Your task to perform on an android device: Search for "razer blade" on bestbuy, select the first entry, add it to the cart, then select checkout. Image 0: 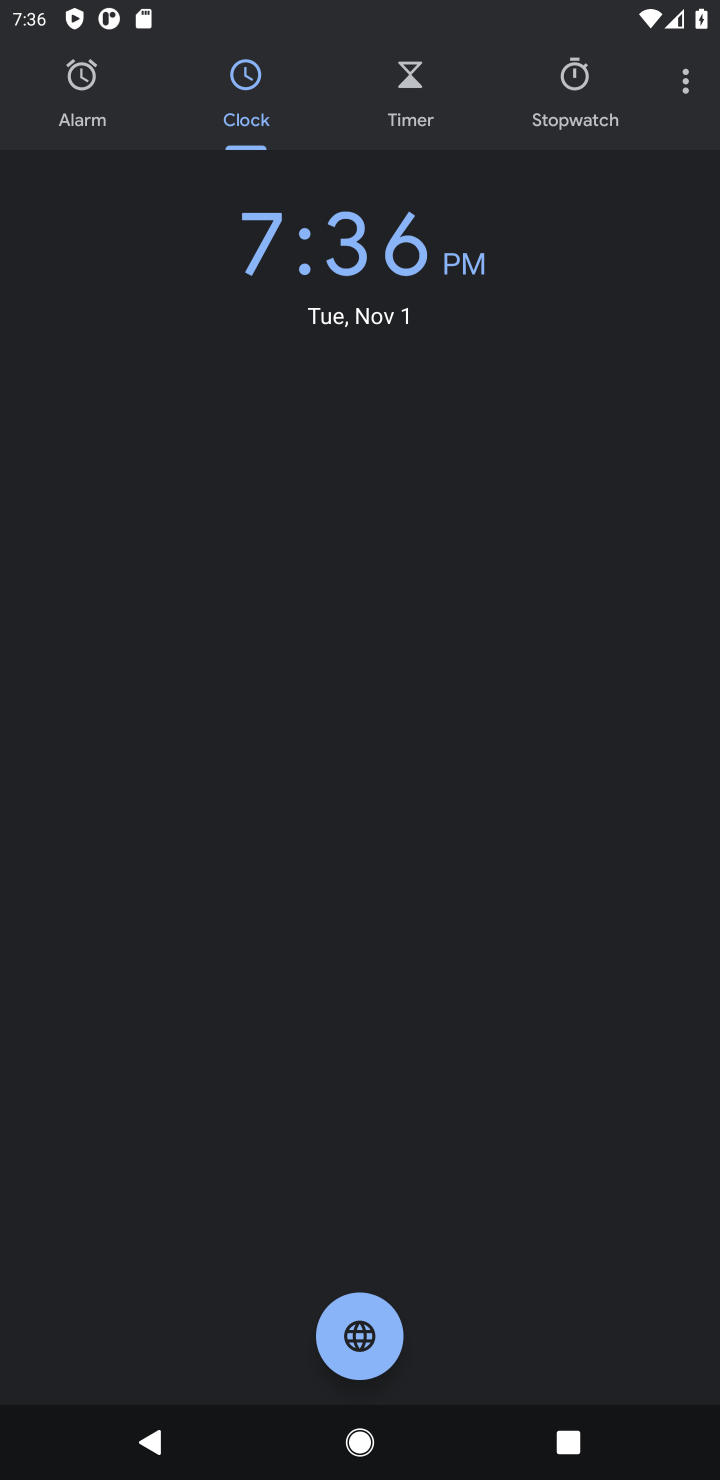
Step 0: press home button
Your task to perform on an android device: Search for "razer blade" on bestbuy, select the first entry, add it to the cart, then select checkout. Image 1: 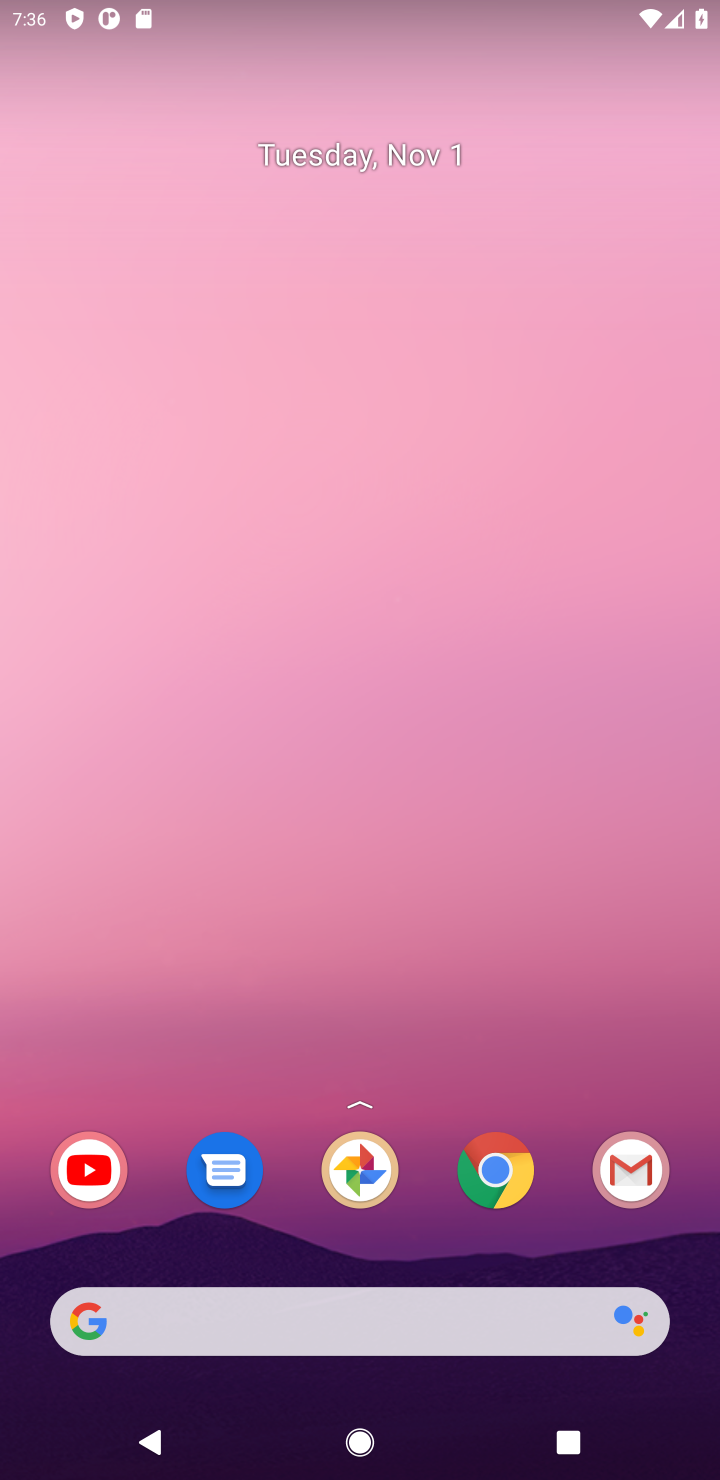
Step 1: click (492, 1166)
Your task to perform on an android device: Search for "razer blade" on bestbuy, select the first entry, add it to the cart, then select checkout. Image 2: 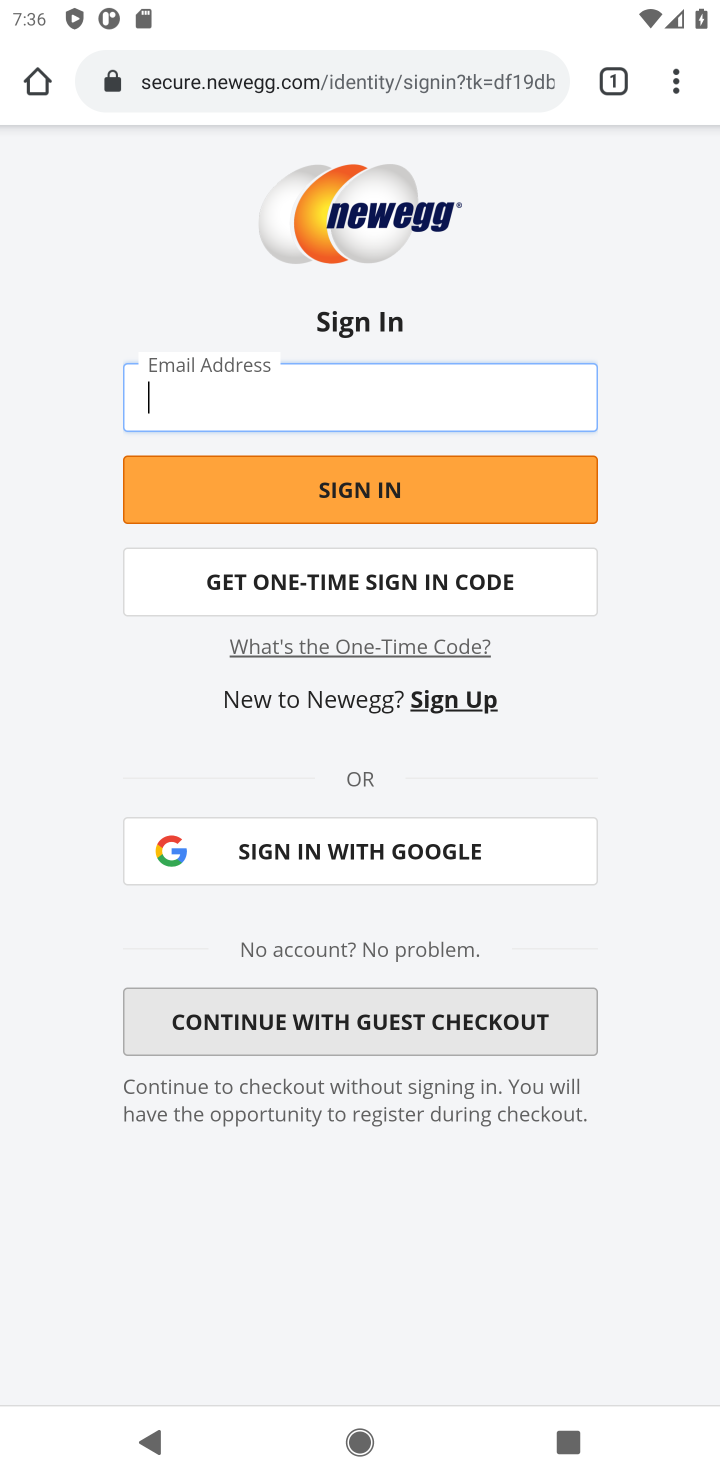
Step 2: click (387, 88)
Your task to perform on an android device: Search for "razer blade" on bestbuy, select the first entry, add it to the cart, then select checkout. Image 3: 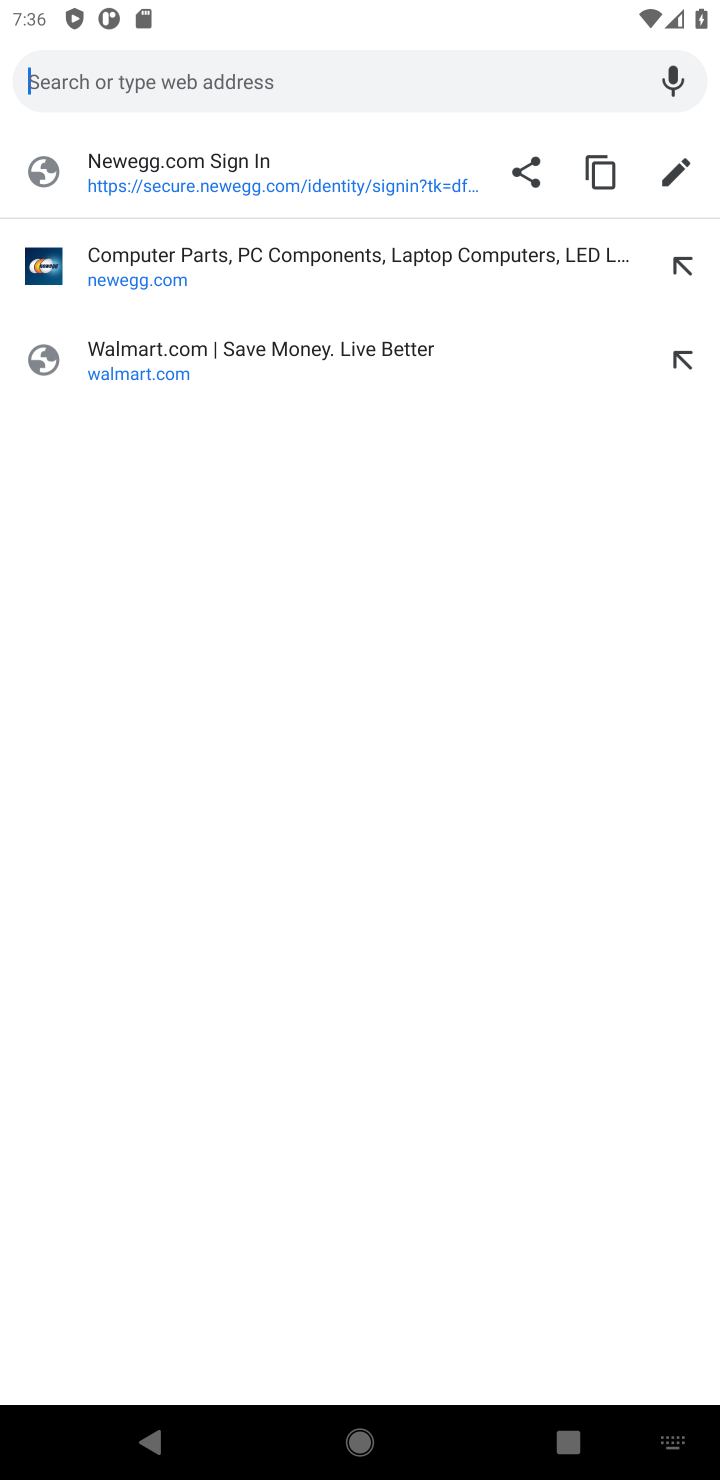
Step 3: type "bestbuy"
Your task to perform on an android device: Search for "razer blade" on bestbuy, select the first entry, add it to the cart, then select checkout. Image 4: 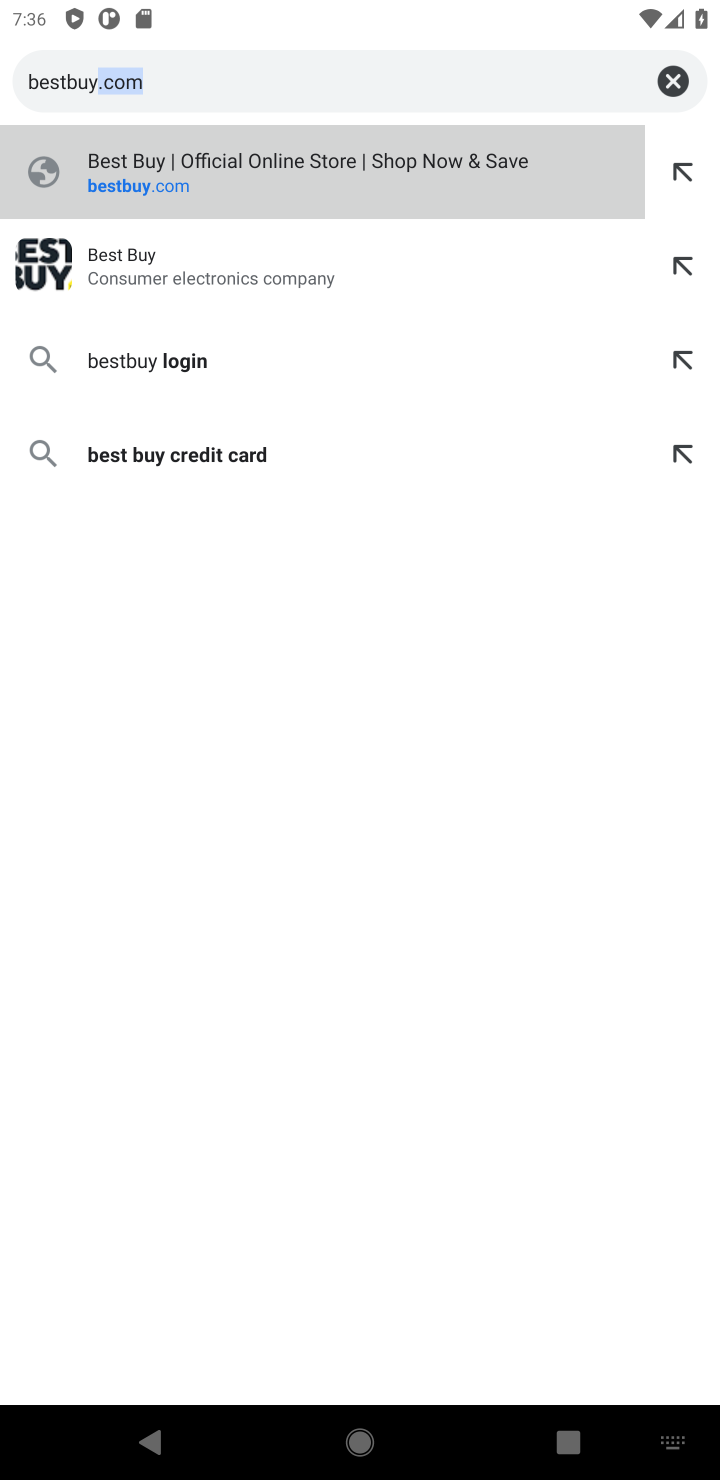
Step 4: type ""
Your task to perform on an android device: Search for "razer blade" on bestbuy, select the first entry, add it to the cart, then select checkout. Image 5: 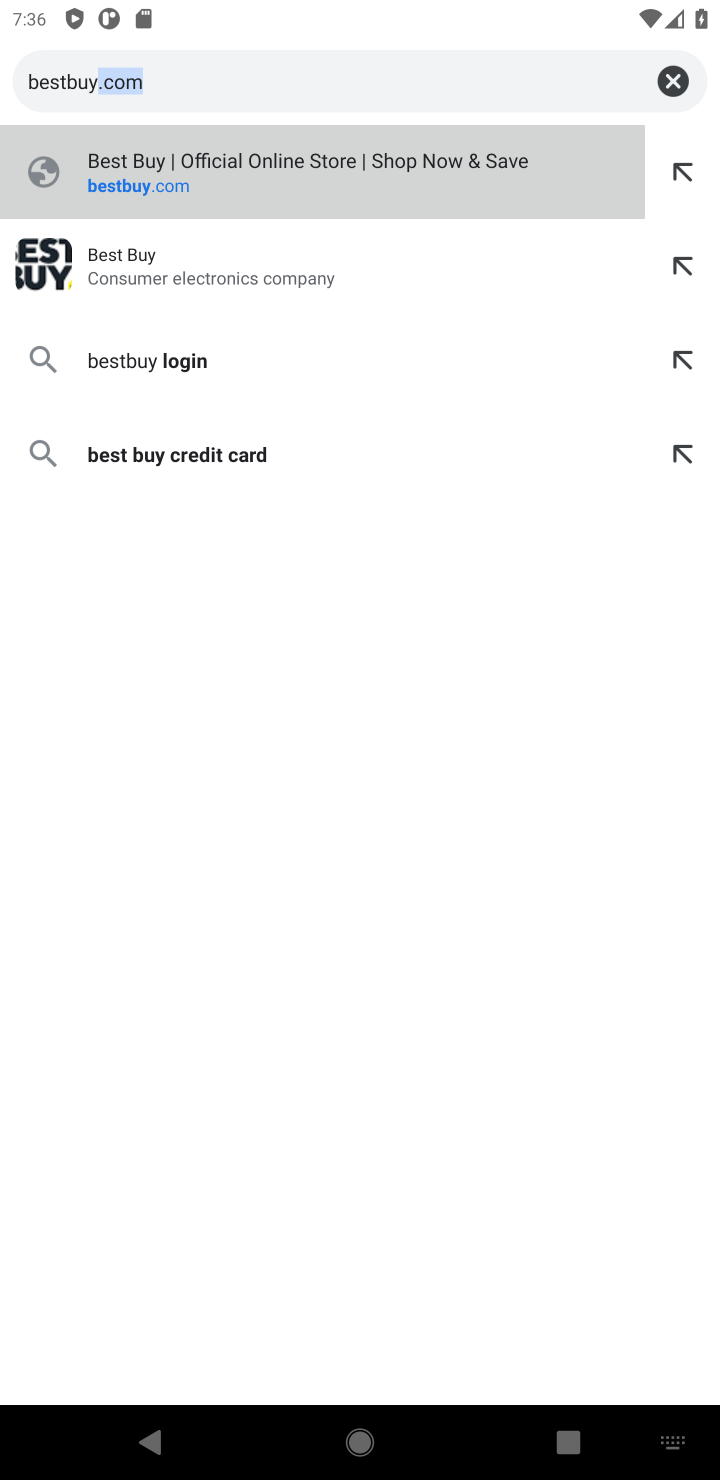
Step 5: press enter
Your task to perform on an android device: Search for "razer blade" on bestbuy, select the first entry, add it to the cart, then select checkout. Image 6: 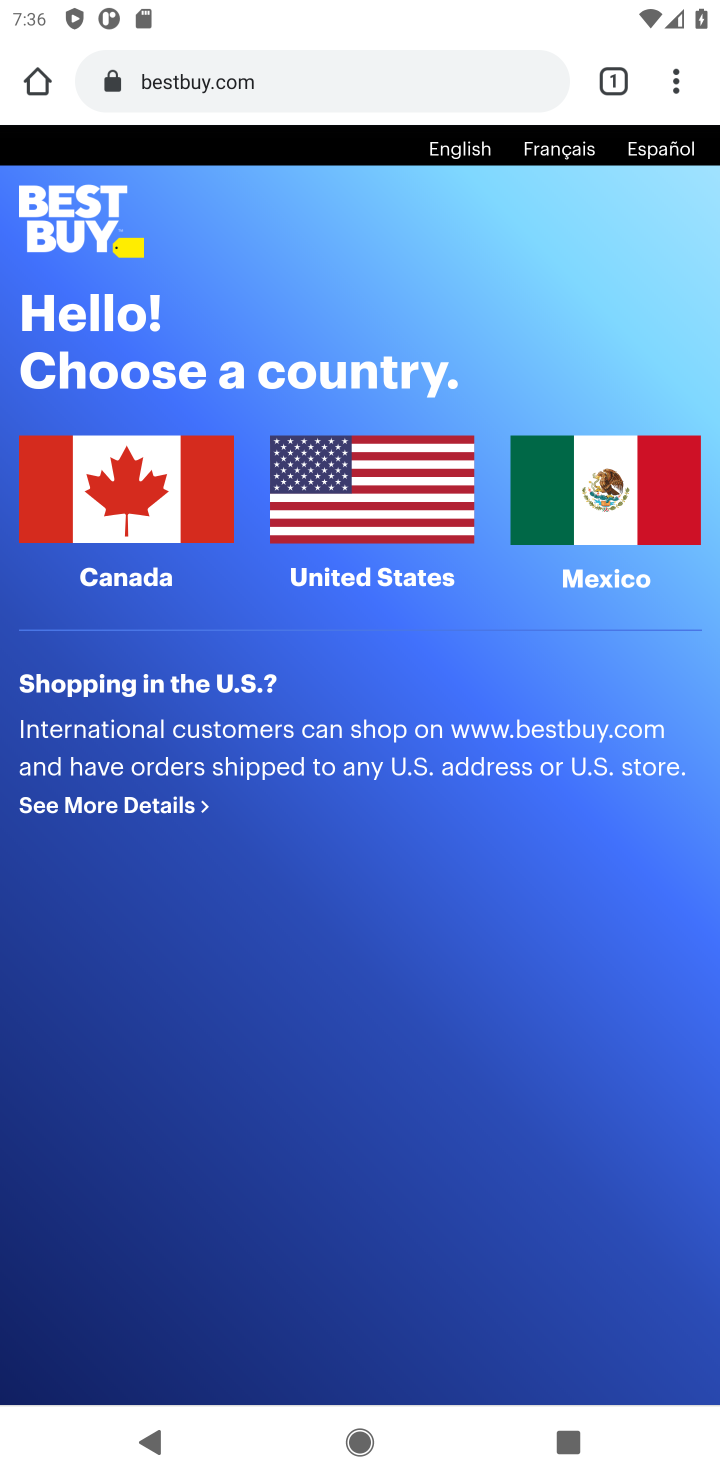
Step 6: click (442, 519)
Your task to perform on an android device: Search for "razer blade" on bestbuy, select the first entry, add it to the cart, then select checkout. Image 7: 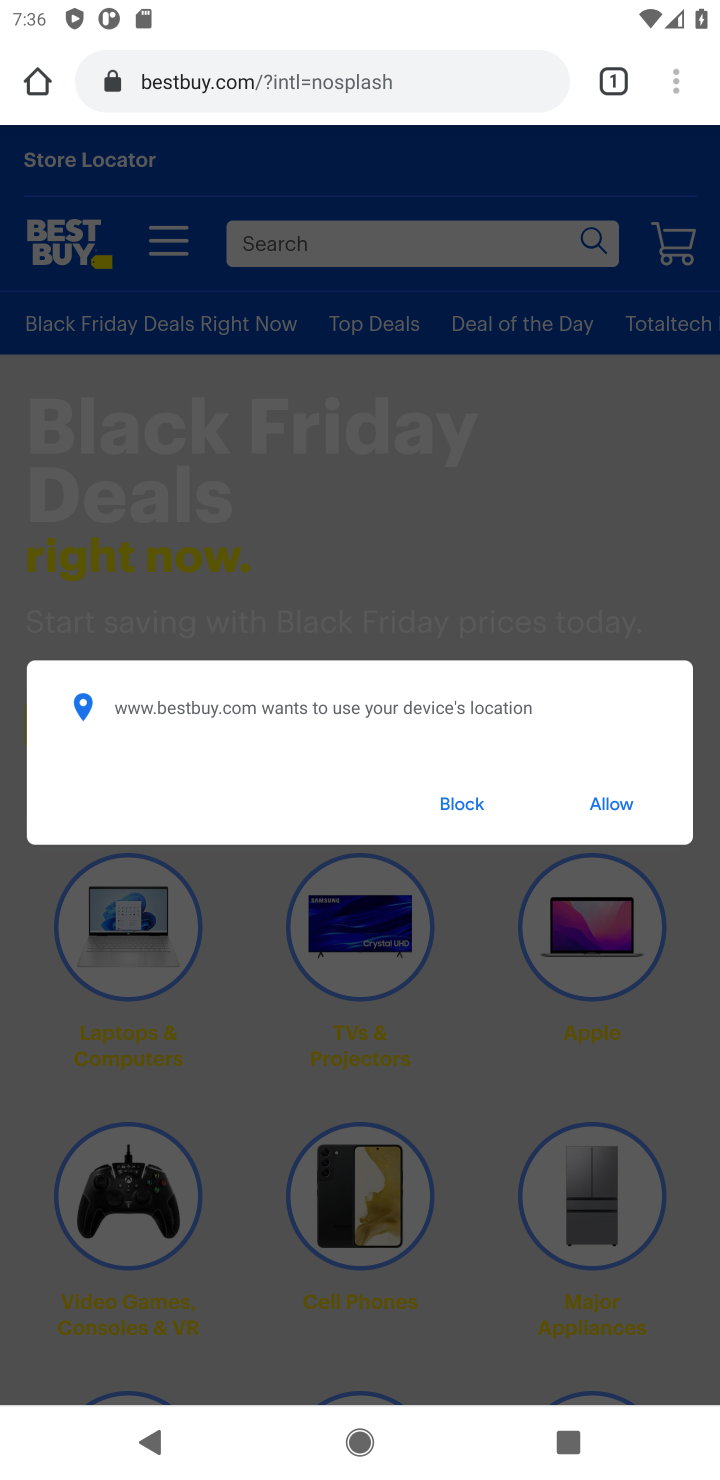
Step 7: click (627, 805)
Your task to perform on an android device: Search for "razer blade" on bestbuy, select the first entry, add it to the cart, then select checkout. Image 8: 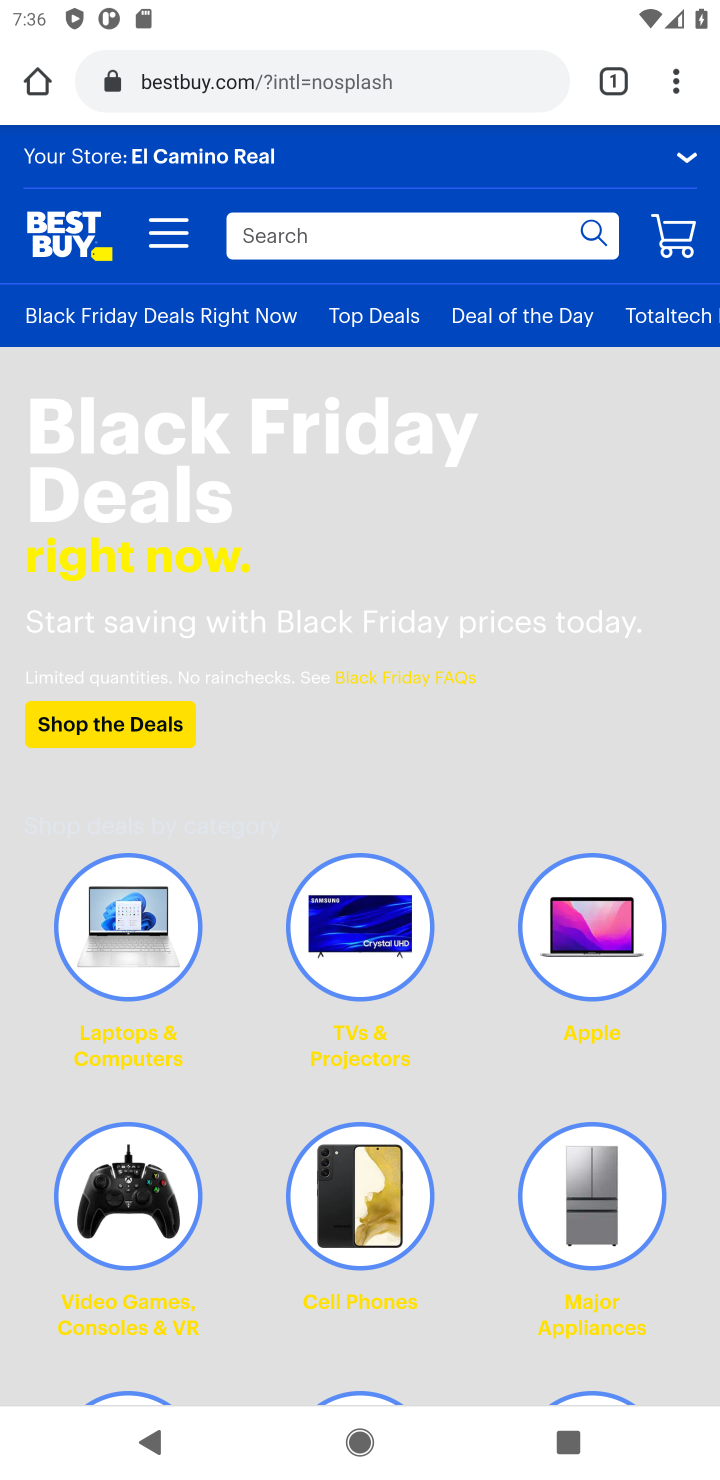
Step 8: click (419, 236)
Your task to perform on an android device: Search for "razer blade" on bestbuy, select the first entry, add it to the cart, then select checkout. Image 9: 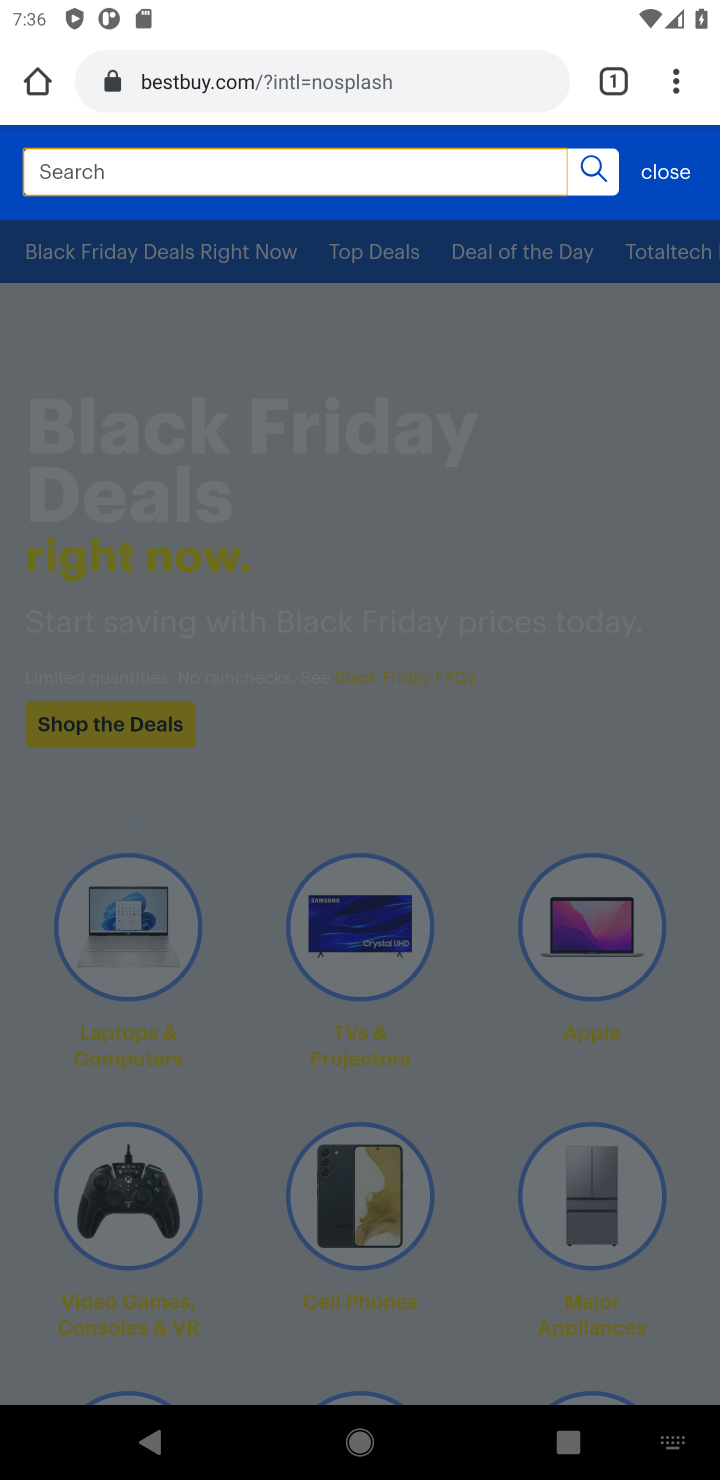
Step 9: type "razer blade"
Your task to perform on an android device: Search for "razer blade" on bestbuy, select the first entry, add it to the cart, then select checkout. Image 10: 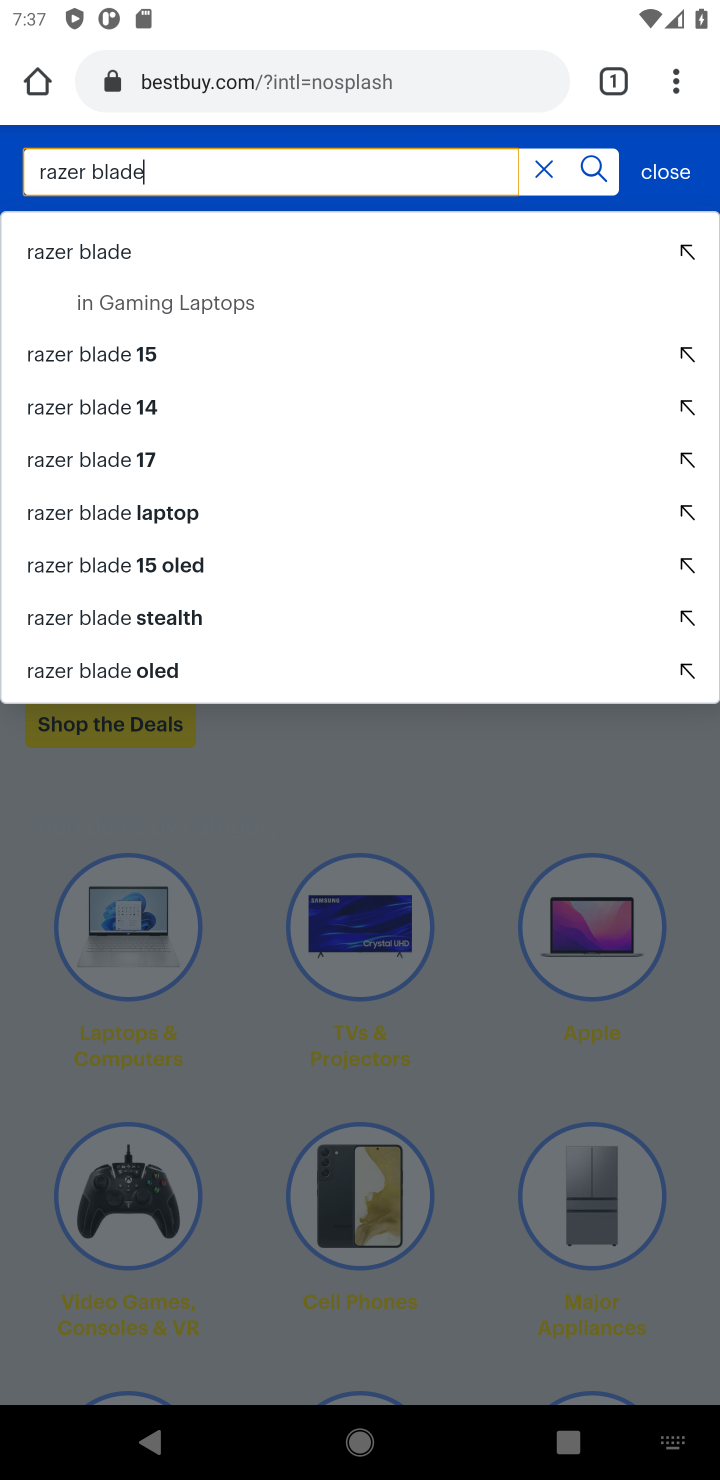
Step 10: press enter
Your task to perform on an android device: Search for "razer blade" on bestbuy, select the first entry, add it to the cart, then select checkout. Image 11: 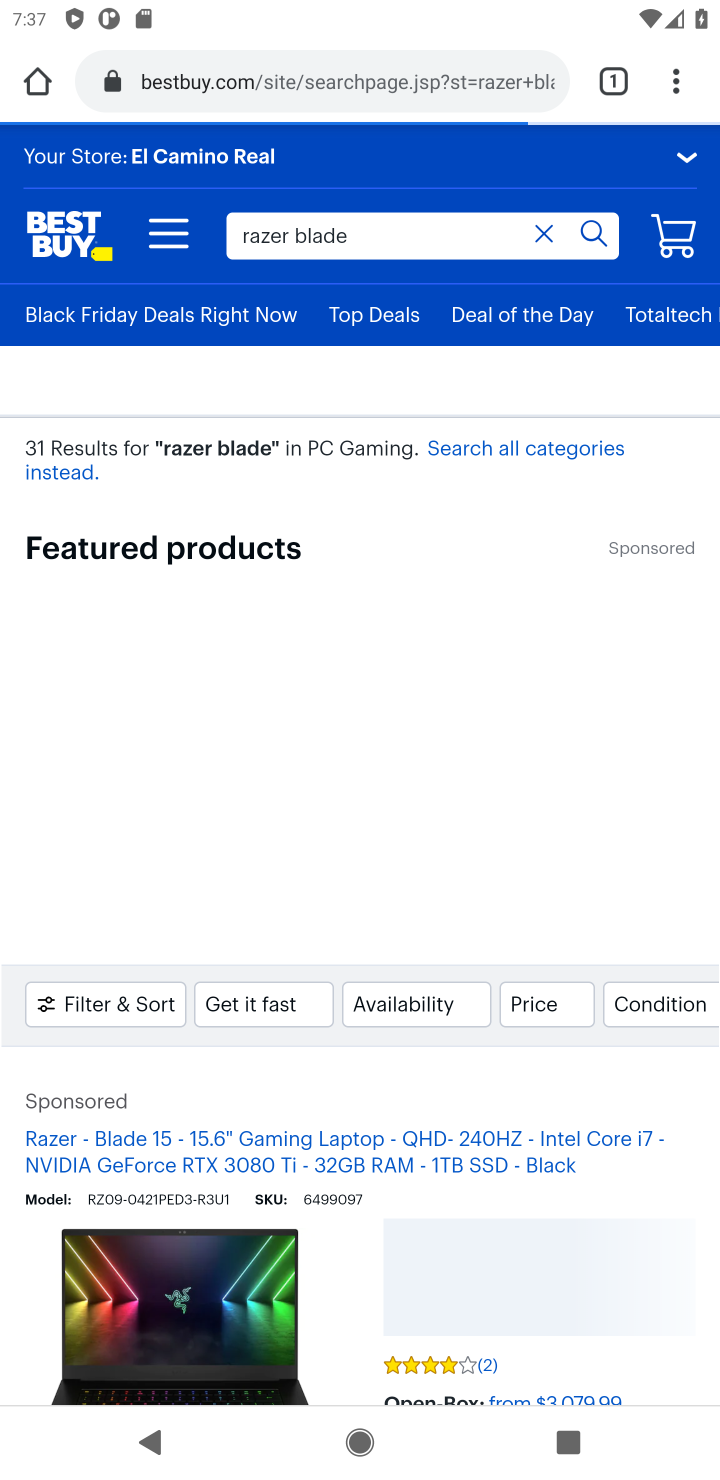
Step 11: drag from (472, 1206) to (443, 772)
Your task to perform on an android device: Search for "razer blade" on bestbuy, select the first entry, add it to the cart, then select checkout. Image 12: 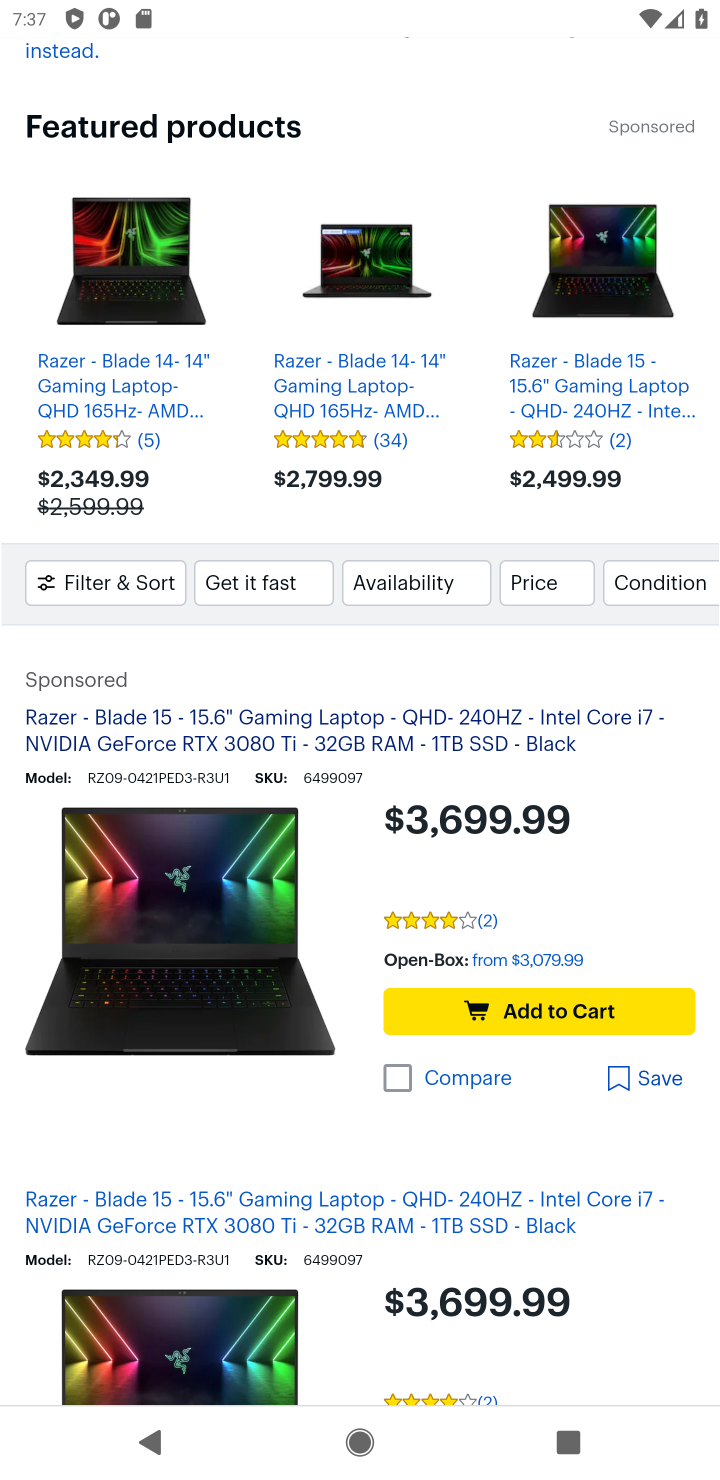
Step 12: click (349, 740)
Your task to perform on an android device: Search for "razer blade" on bestbuy, select the first entry, add it to the cart, then select checkout. Image 13: 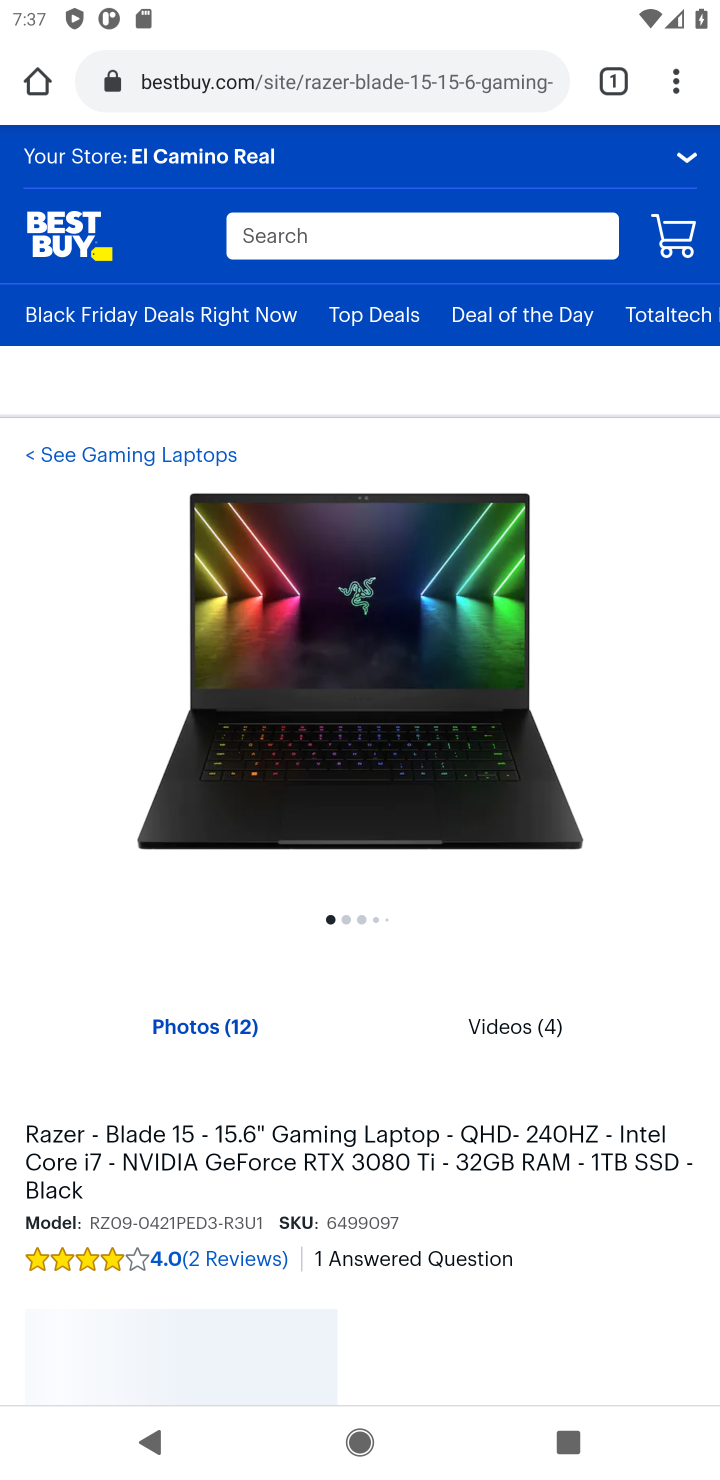
Step 13: drag from (523, 1229) to (482, 811)
Your task to perform on an android device: Search for "razer blade" on bestbuy, select the first entry, add it to the cart, then select checkout. Image 14: 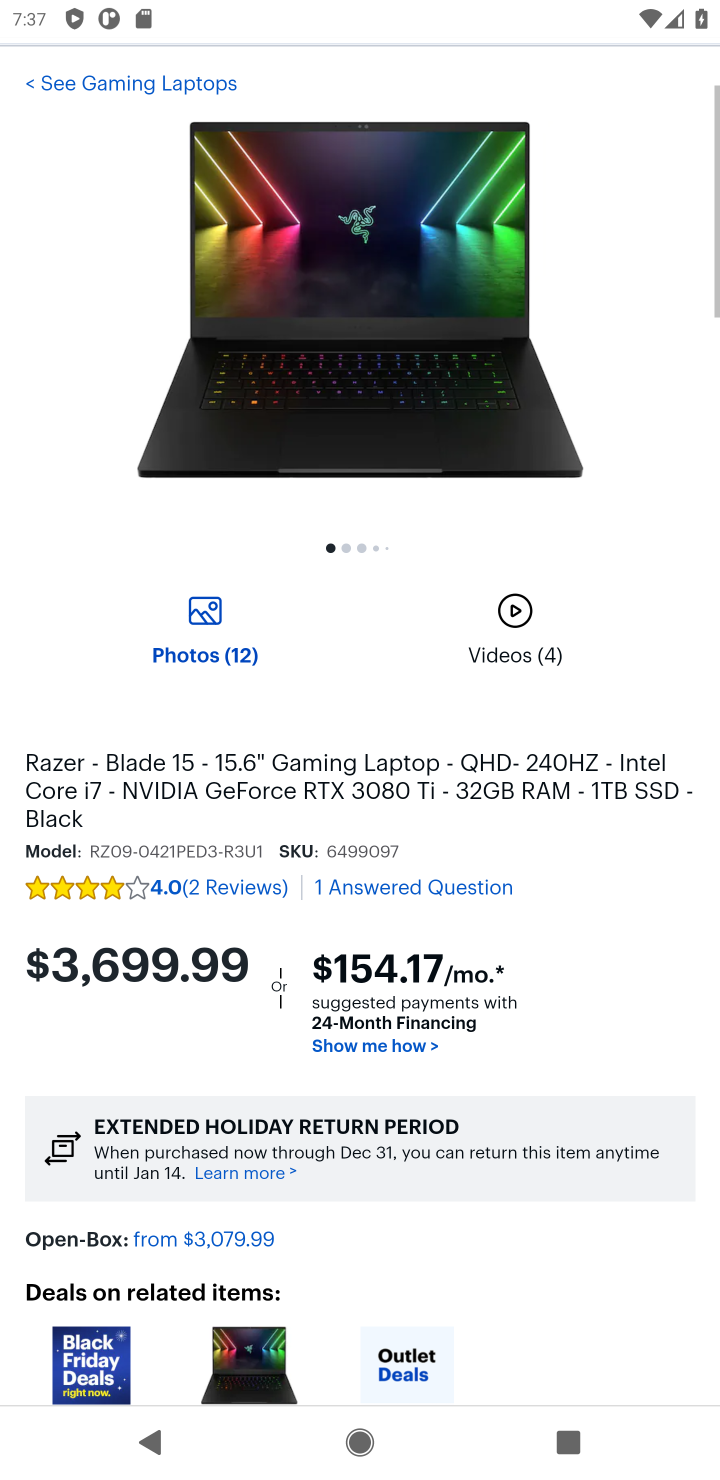
Step 14: drag from (484, 743) to (425, 424)
Your task to perform on an android device: Search for "razer blade" on bestbuy, select the first entry, add it to the cart, then select checkout. Image 15: 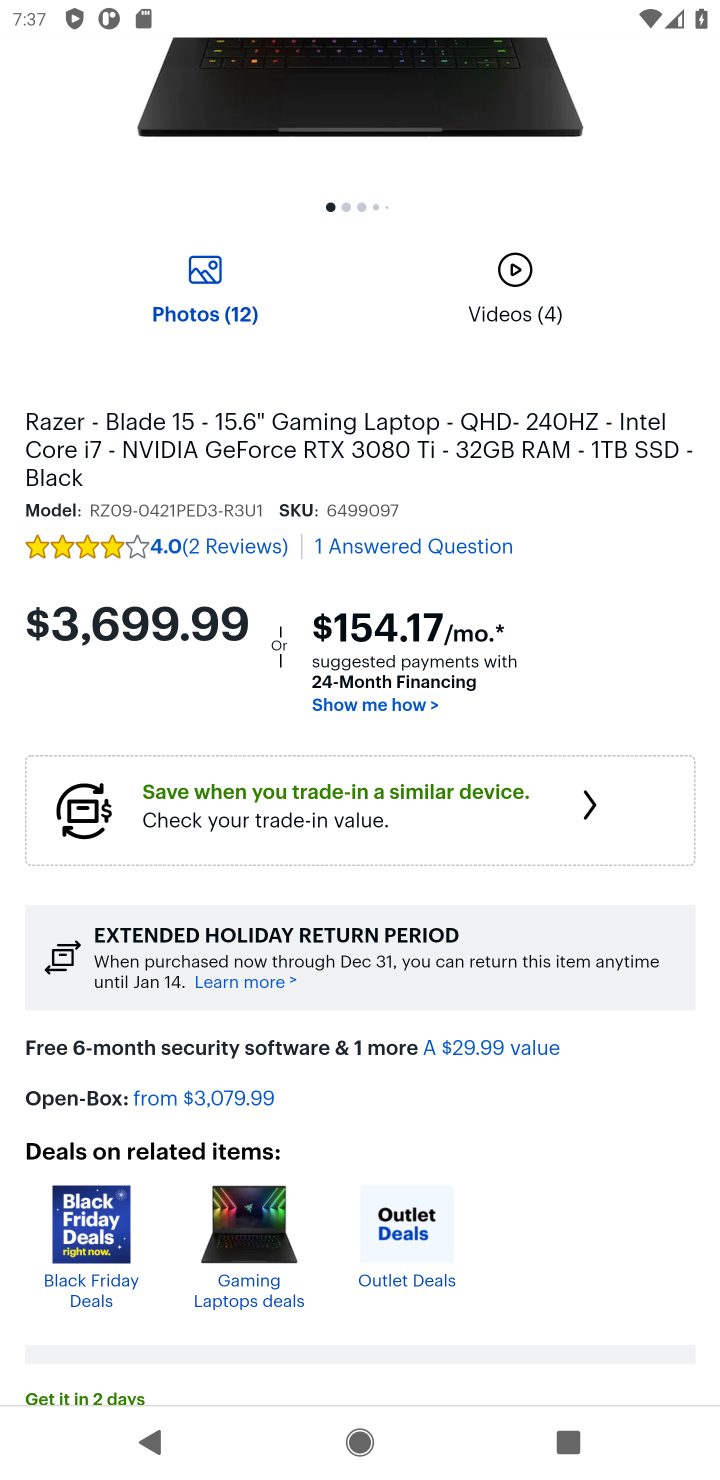
Step 15: drag from (433, 1251) to (379, 468)
Your task to perform on an android device: Search for "razer blade" on bestbuy, select the first entry, add it to the cart, then select checkout. Image 16: 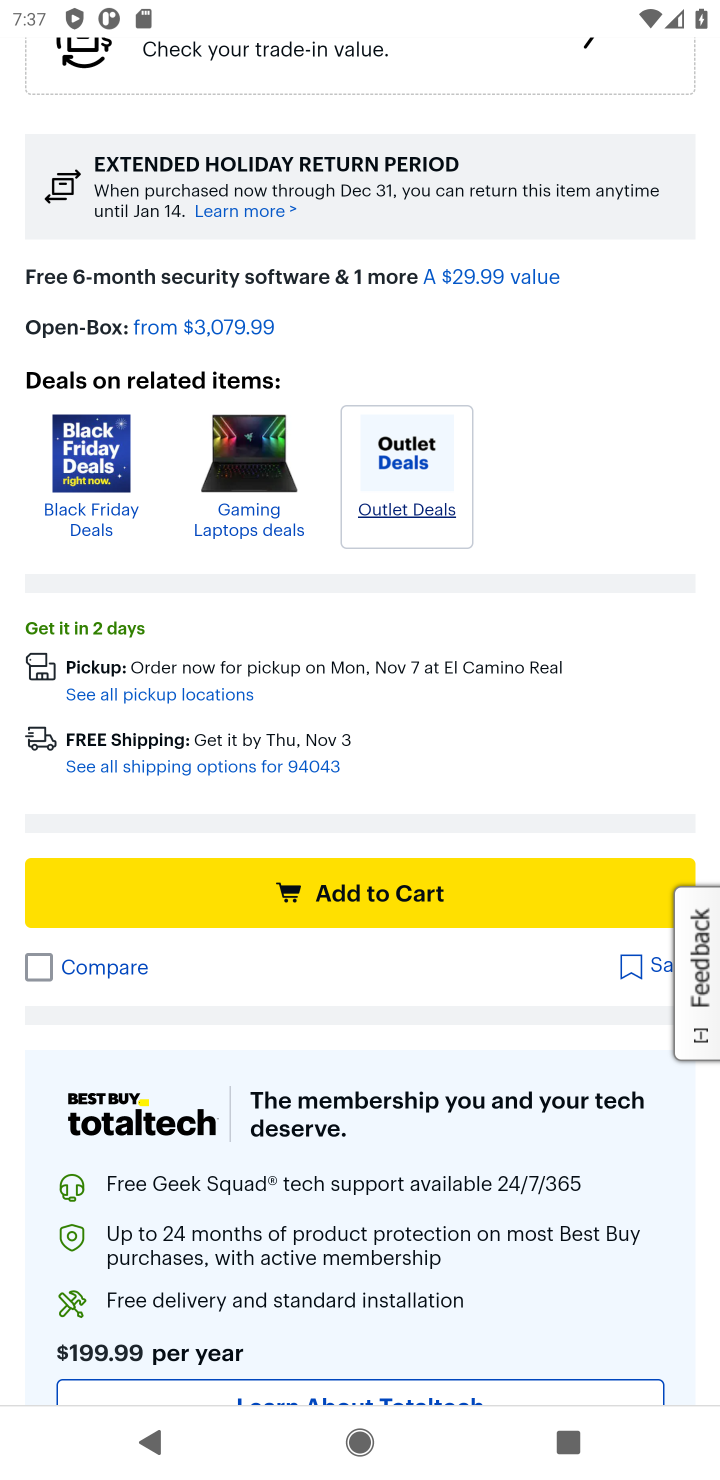
Step 16: click (393, 897)
Your task to perform on an android device: Search for "razer blade" on bestbuy, select the first entry, add it to the cart, then select checkout. Image 17: 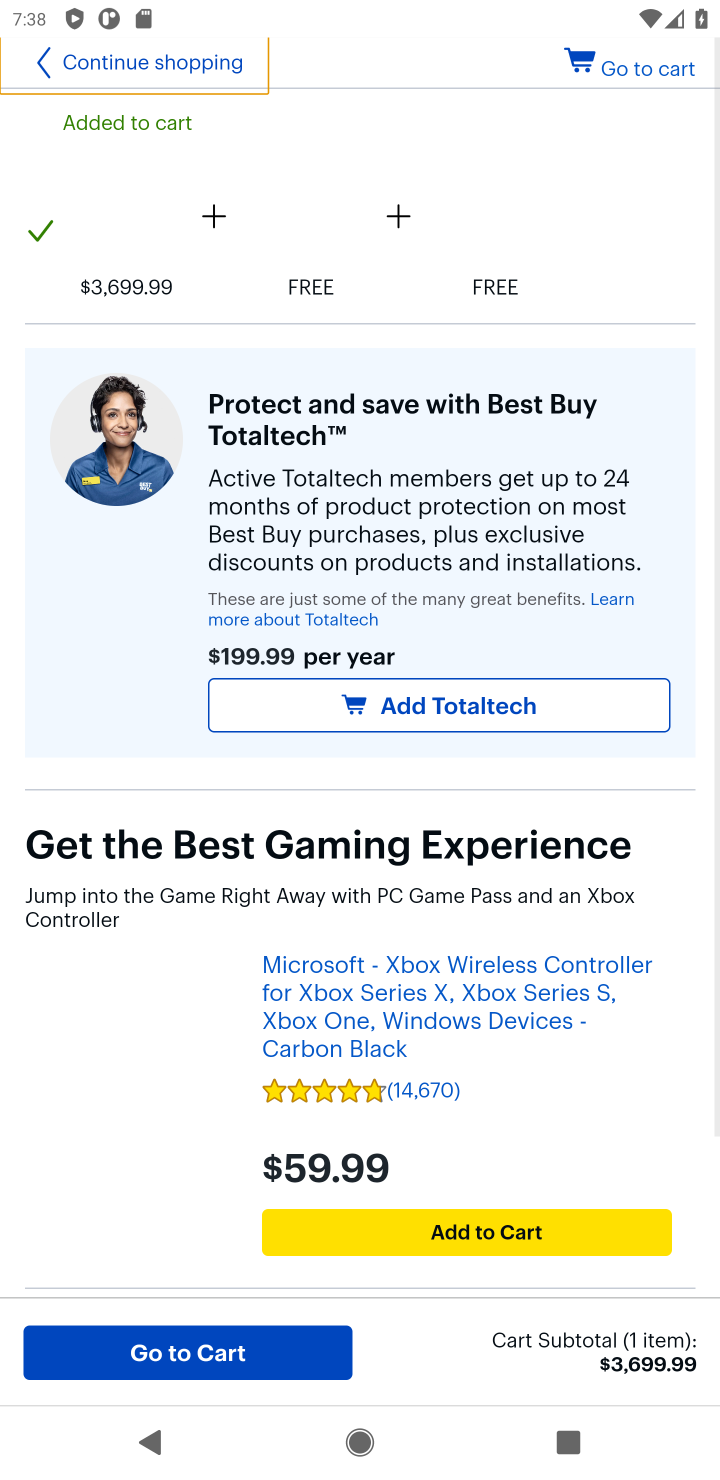
Step 17: click (274, 1359)
Your task to perform on an android device: Search for "razer blade" on bestbuy, select the first entry, add it to the cart, then select checkout. Image 18: 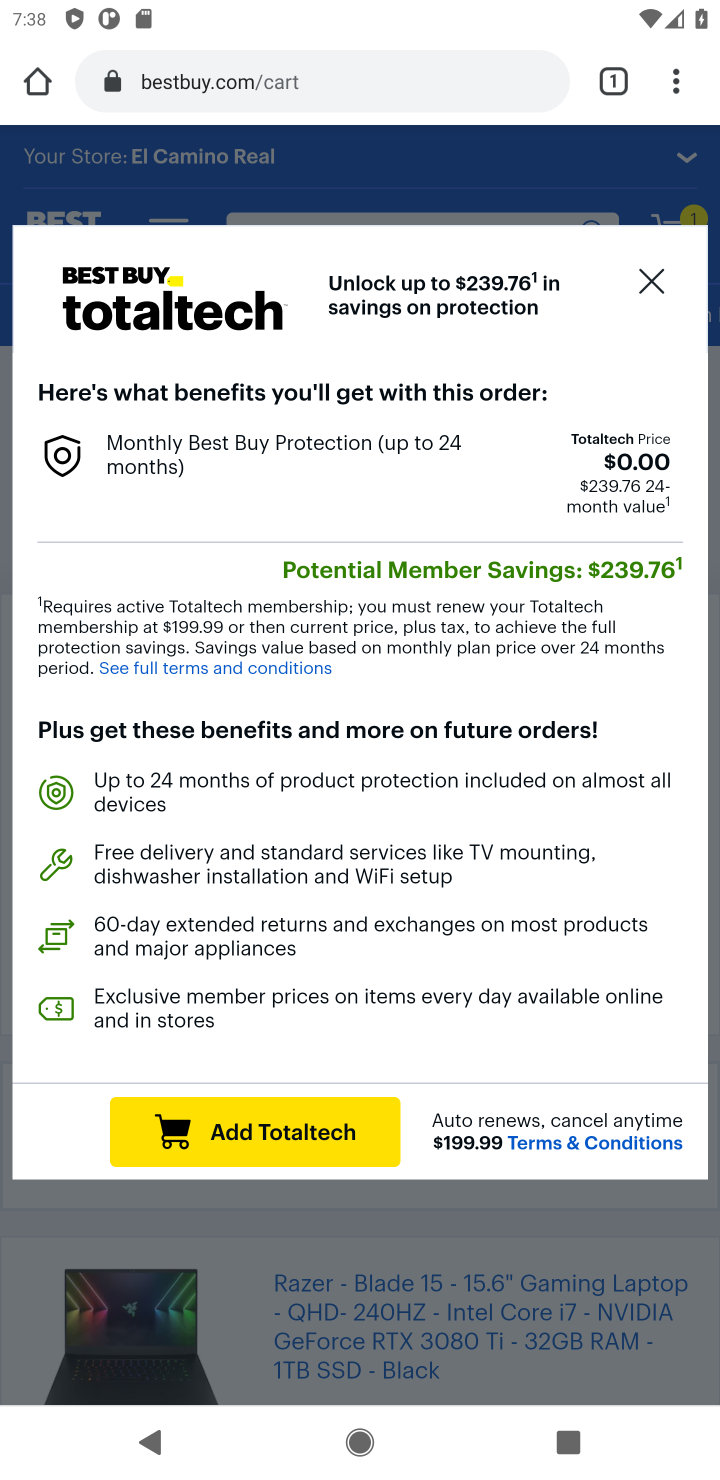
Step 18: click (655, 279)
Your task to perform on an android device: Search for "razer blade" on bestbuy, select the first entry, add it to the cart, then select checkout. Image 19: 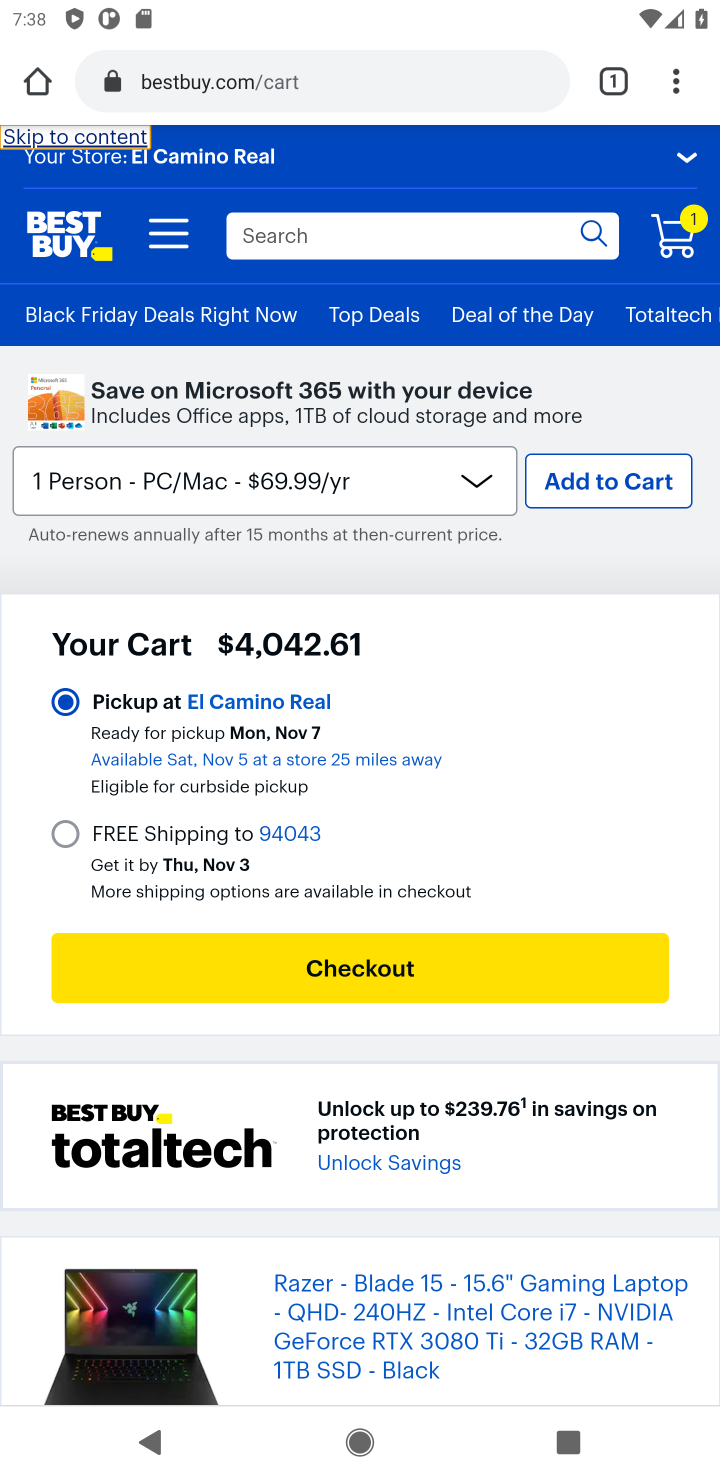
Step 19: click (454, 952)
Your task to perform on an android device: Search for "razer blade" on bestbuy, select the first entry, add it to the cart, then select checkout. Image 20: 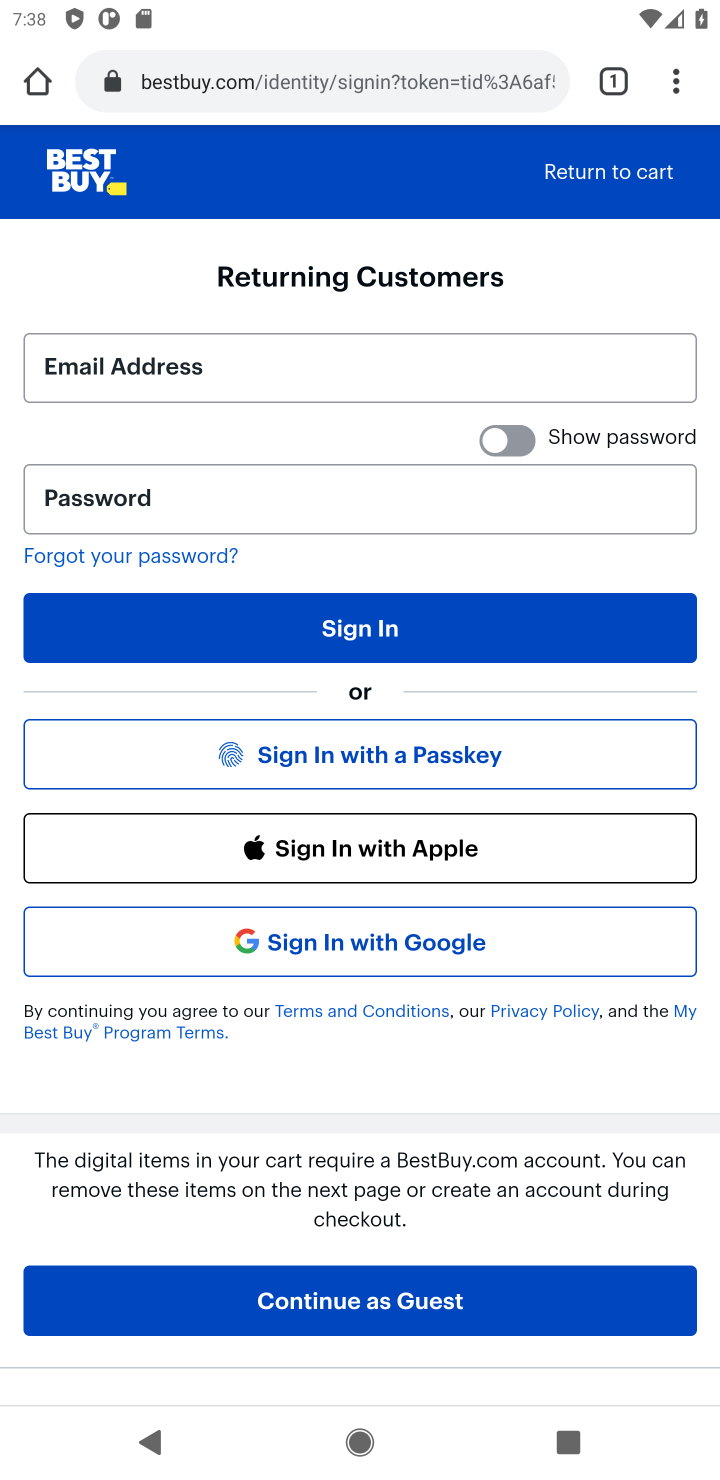
Step 20: task complete